Your task to perform on an android device: toggle improve location accuracy Image 0: 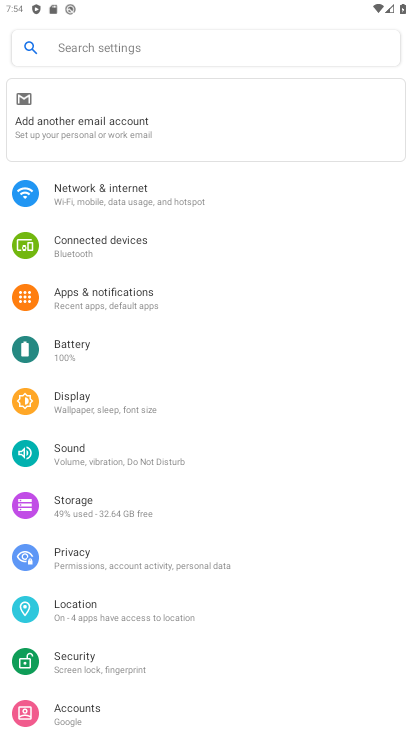
Step 0: click (161, 608)
Your task to perform on an android device: toggle improve location accuracy Image 1: 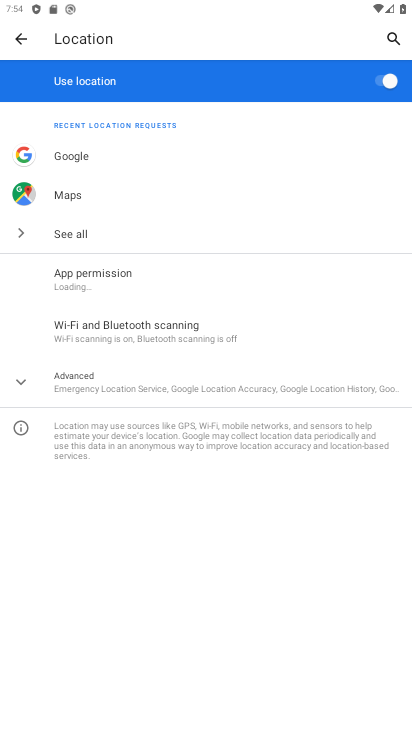
Step 1: click (105, 394)
Your task to perform on an android device: toggle improve location accuracy Image 2: 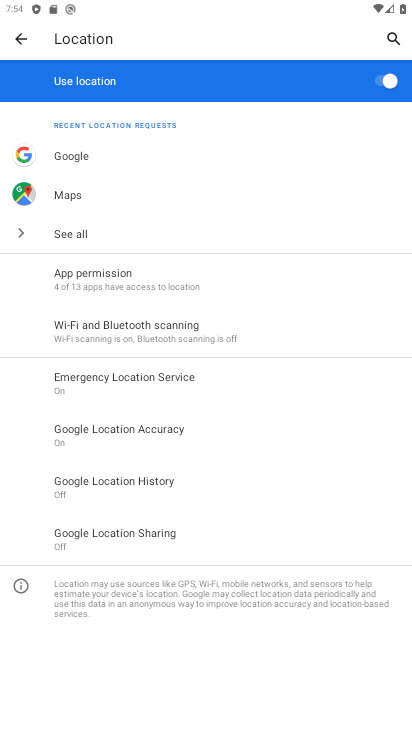
Step 2: click (163, 439)
Your task to perform on an android device: toggle improve location accuracy Image 3: 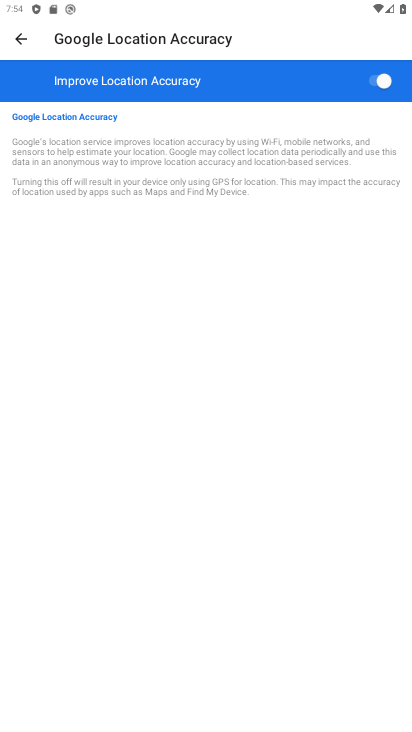
Step 3: click (390, 76)
Your task to perform on an android device: toggle improve location accuracy Image 4: 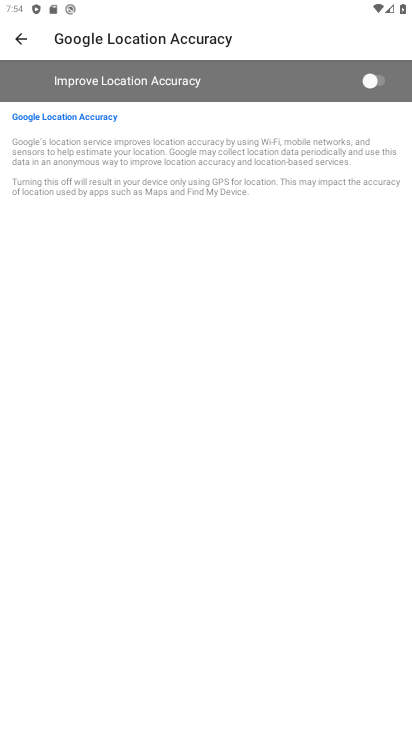
Step 4: task complete